Your task to perform on an android device: Go to Wikipedia Image 0: 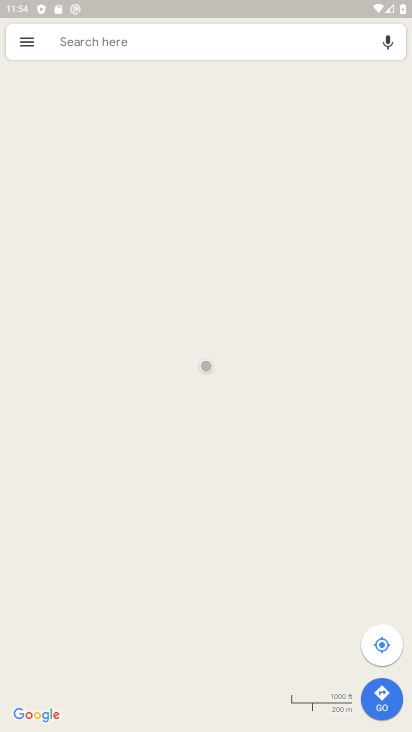
Step 0: press home button
Your task to perform on an android device: Go to Wikipedia Image 1: 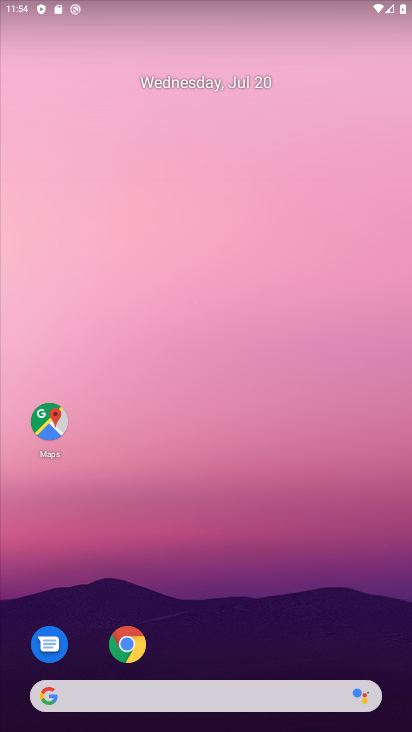
Step 1: click (126, 645)
Your task to perform on an android device: Go to Wikipedia Image 2: 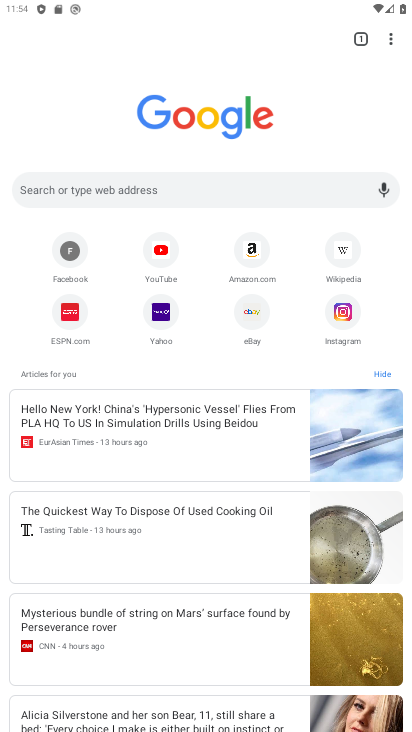
Step 2: click (145, 186)
Your task to perform on an android device: Go to Wikipedia Image 3: 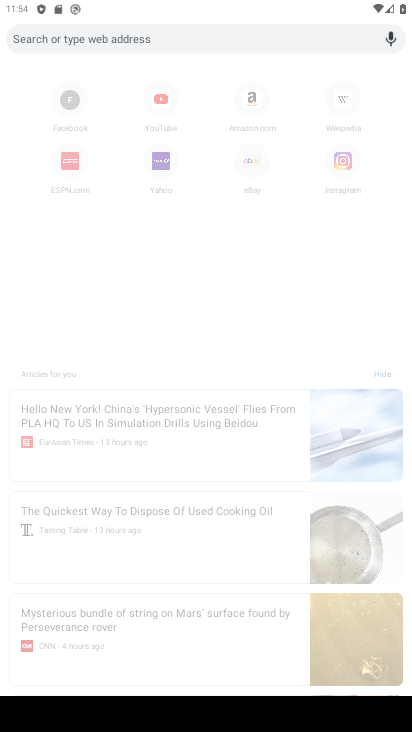
Step 3: type "wikipedia"
Your task to perform on an android device: Go to Wikipedia Image 4: 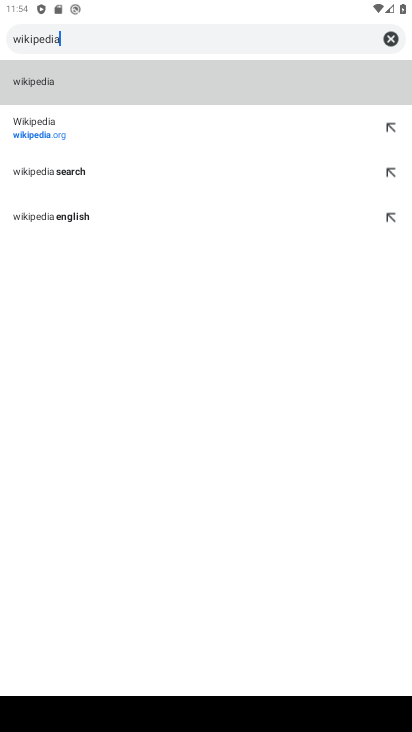
Step 4: click (46, 75)
Your task to perform on an android device: Go to Wikipedia Image 5: 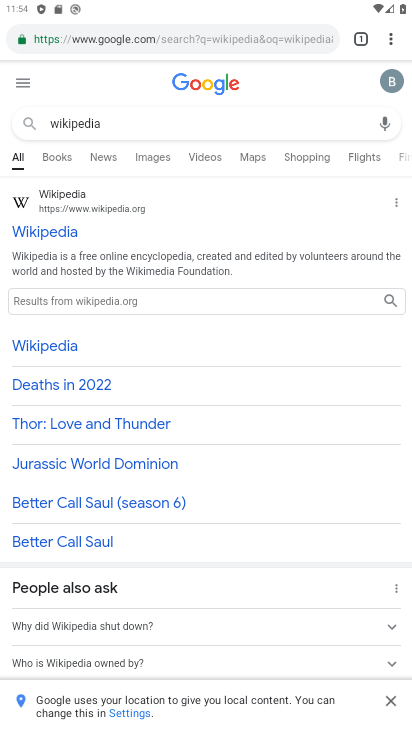
Step 5: click (40, 227)
Your task to perform on an android device: Go to Wikipedia Image 6: 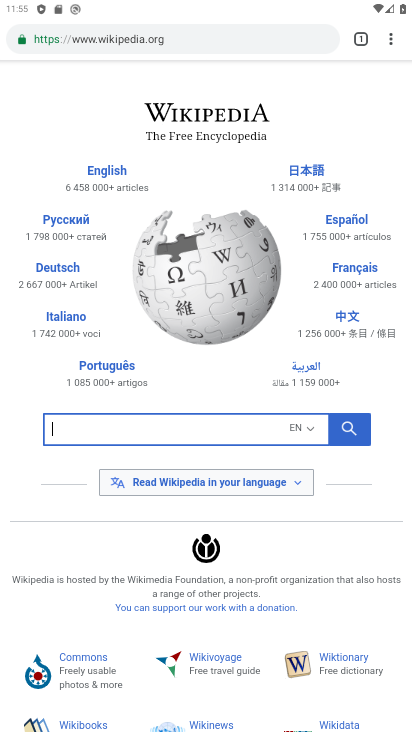
Step 6: task complete